Your task to perform on an android device: Go to notification settings Image 0: 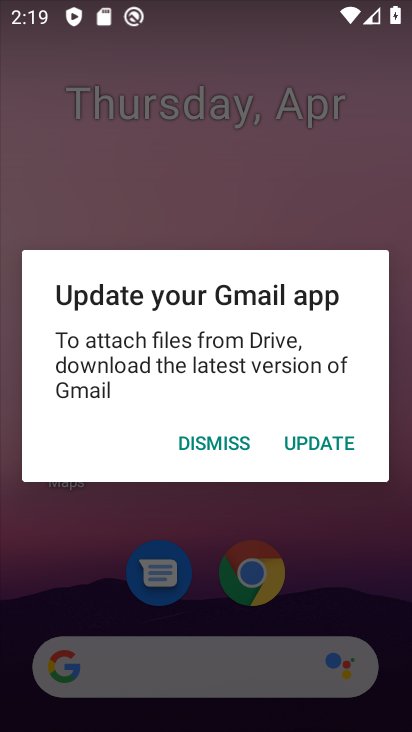
Step 0: press home button
Your task to perform on an android device: Go to notification settings Image 1: 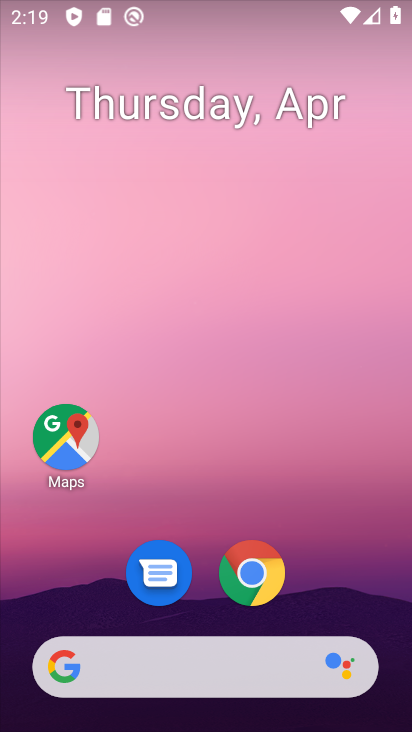
Step 1: drag from (322, 577) to (256, 114)
Your task to perform on an android device: Go to notification settings Image 2: 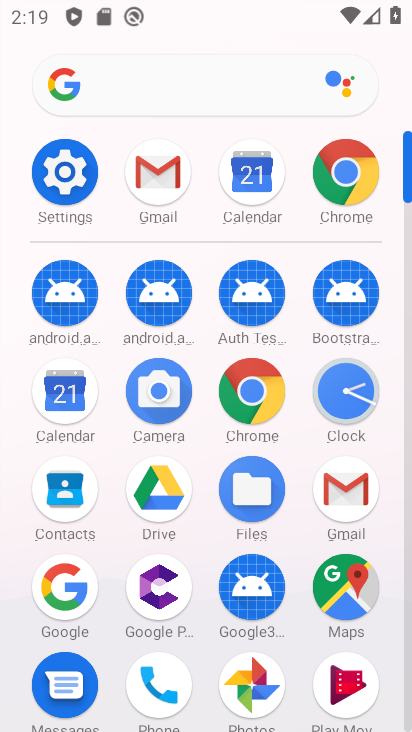
Step 2: click (55, 175)
Your task to perform on an android device: Go to notification settings Image 3: 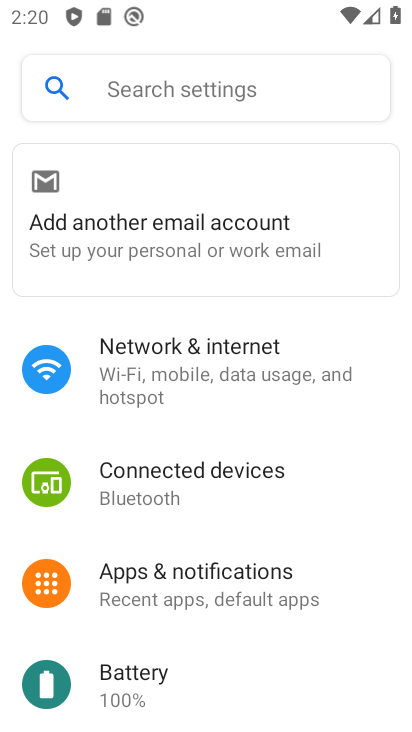
Step 3: click (182, 569)
Your task to perform on an android device: Go to notification settings Image 4: 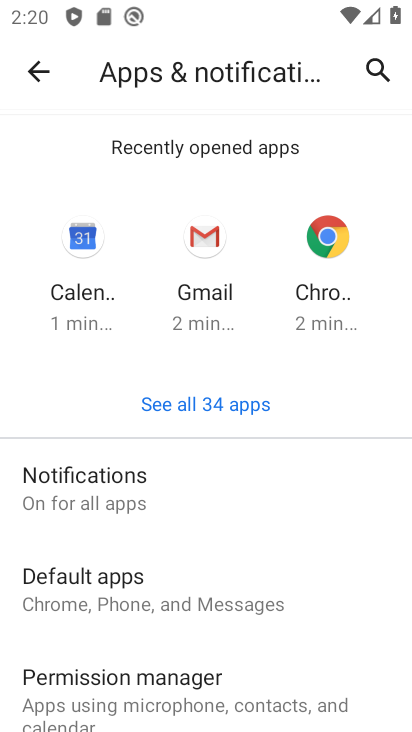
Step 4: click (260, 497)
Your task to perform on an android device: Go to notification settings Image 5: 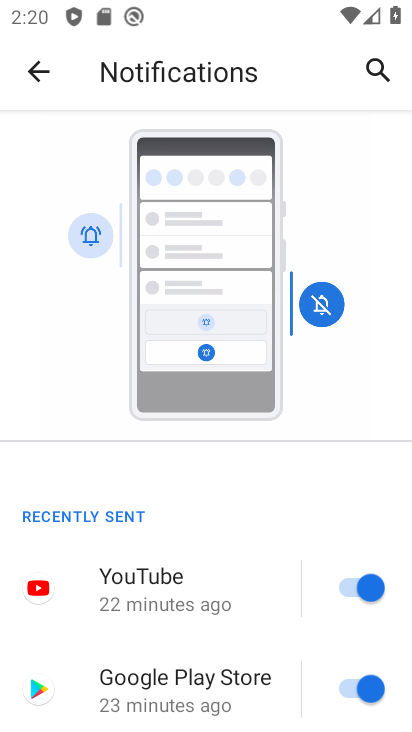
Step 5: task complete